Your task to perform on an android device: open chrome privacy settings Image 0: 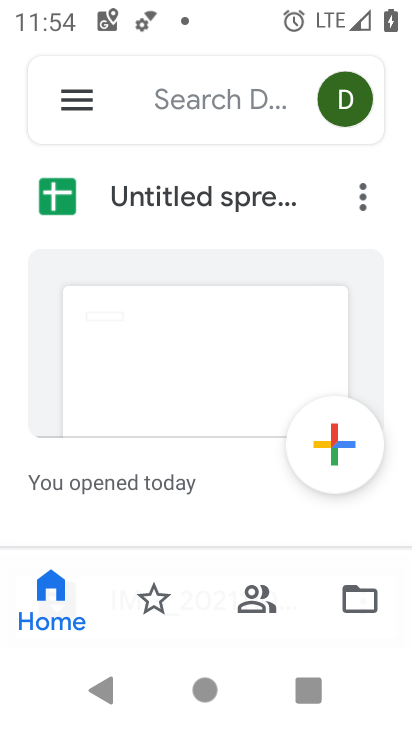
Step 0: press home button
Your task to perform on an android device: open chrome privacy settings Image 1: 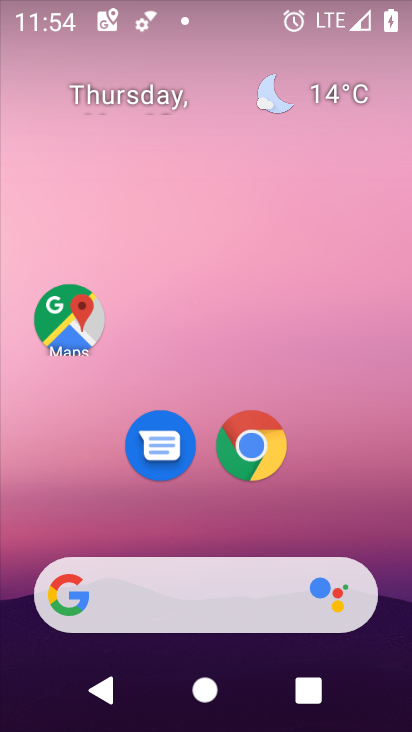
Step 1: drag from (196, 490) to (208, 89)
Your task to perform on an android device: open chrome privacy settings Image 2: 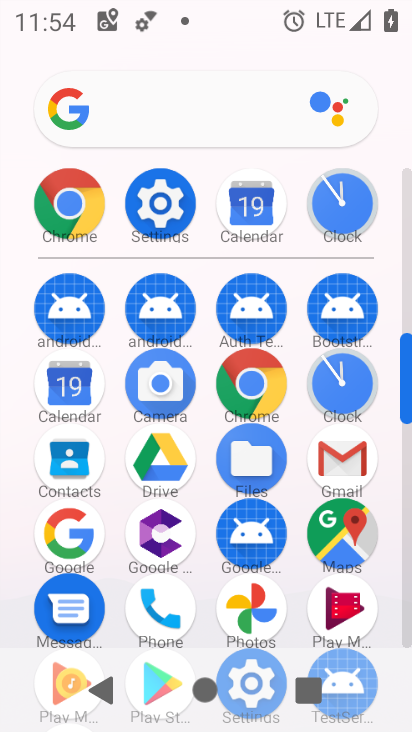
Step 2: click (148, 219)
Your task to perform on an android device: open chrome privacy settings Image 3: 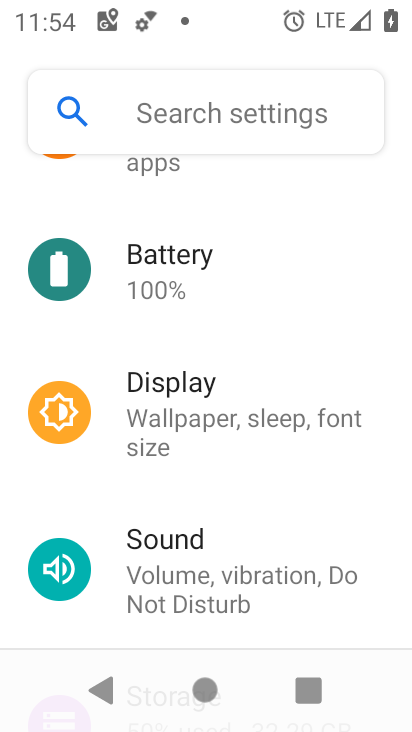
Step 3: drag from (191, 481) to (203, 322)
Your task to perform on an android device: open chrome privacy settings Image 4: 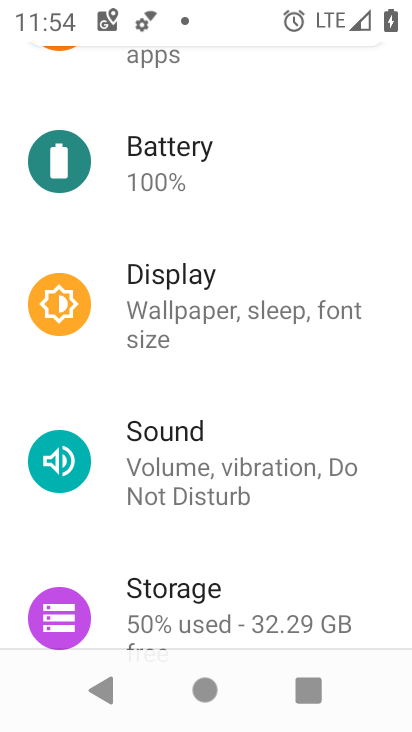
Step 4: drag from (229, 530) to (281, 153)
Your task to perform on an android device: open chrome privacy settings Image 5: 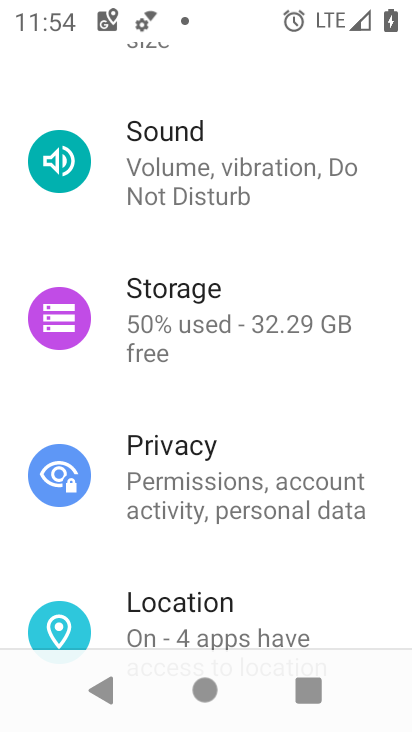
Step 5: click (243, 488)
Your task to perform on an android device: open chrome privacy settings Image 6: 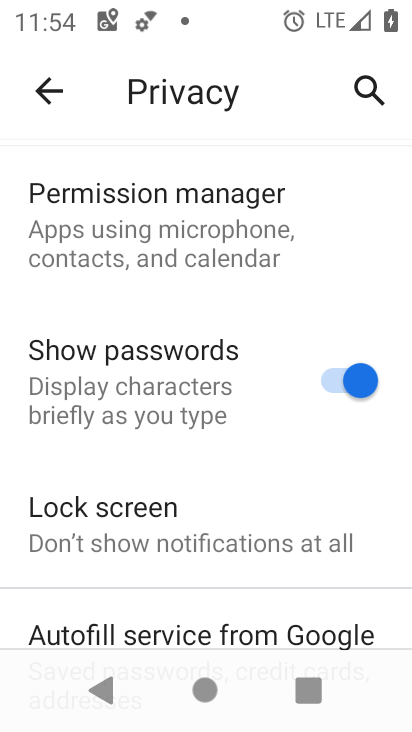
Step 6: task complete